Your task to perform on an android device: What's on my calendar tomorrow? Image 0: 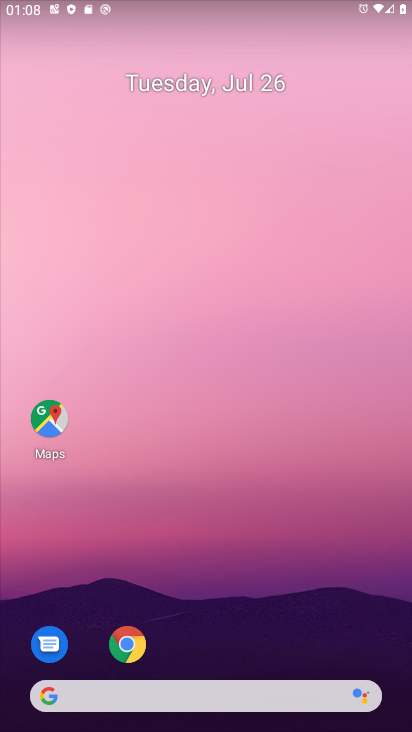
Step 0: drag from (139, 602) to (150, 30)
Your task to perform on an android device: What's on my calendar tomorrow? Image 1: 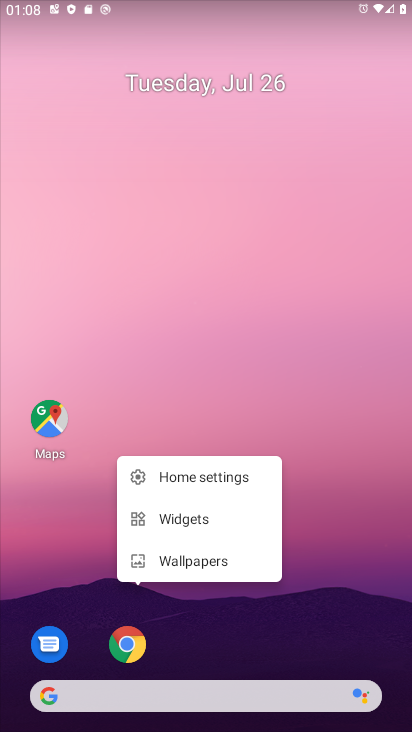
Step 1: click (187, 368)
Your task to perform on an android device: What's on my calendar tomorrow? Image 2: 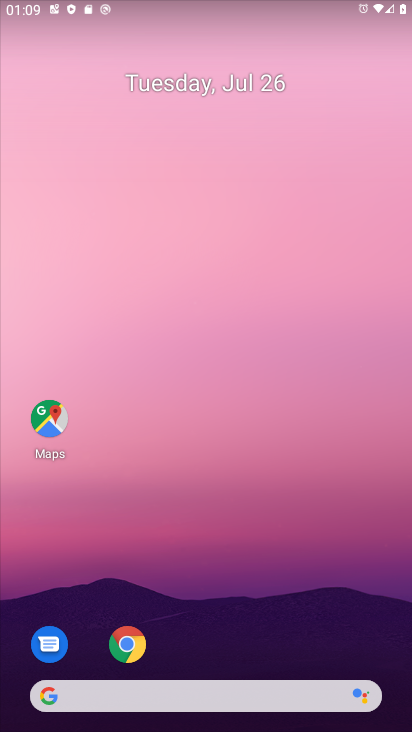
Step 2: drag from (224, 598) to (223, 231)
Your task to perform on an android device: What's on my calendar tomorrow? Image 3: 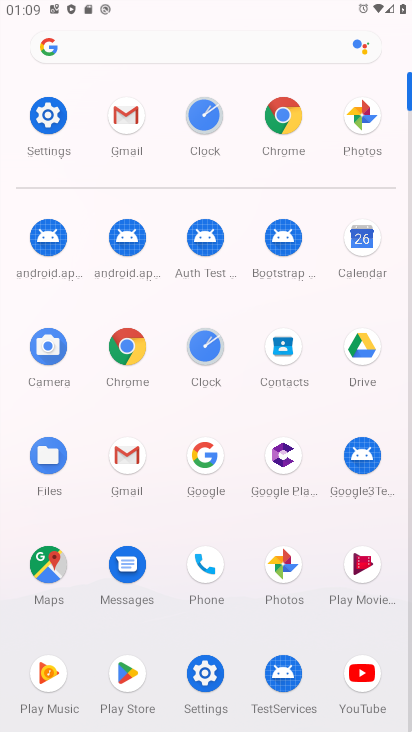
Step 3: click (362, 227)
Your task to perform on an android device: What's on my calendar tomorrow? Image 4: 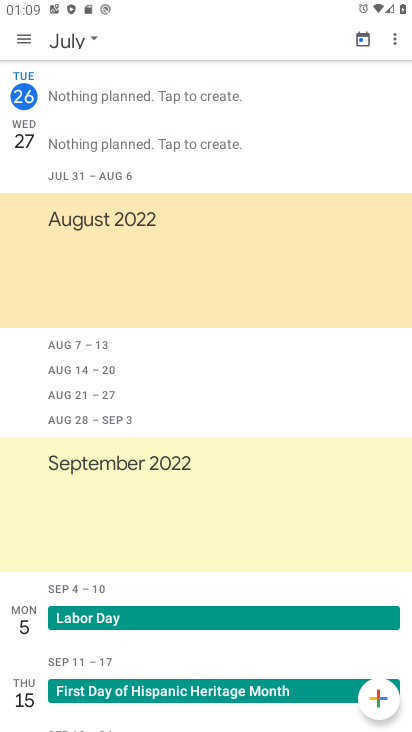
Step 4: click (27, 32)
Your task to perform on an android device: What's on my calendar tomorrow? Image 5: 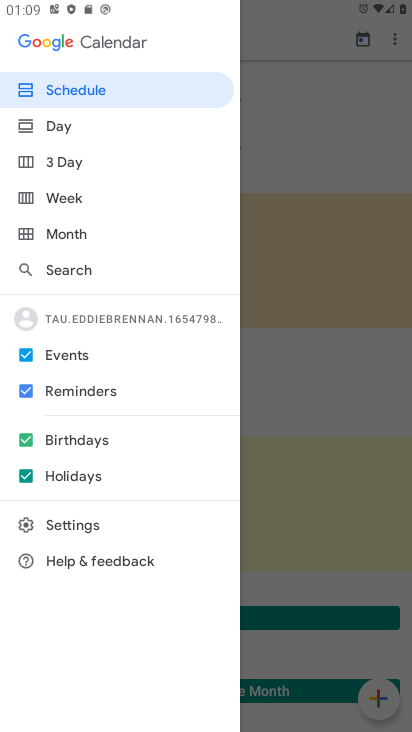
Step 5: click (61, 218)
Your task to perform on an android device: What's on my calendar tomorrow? Image 6: 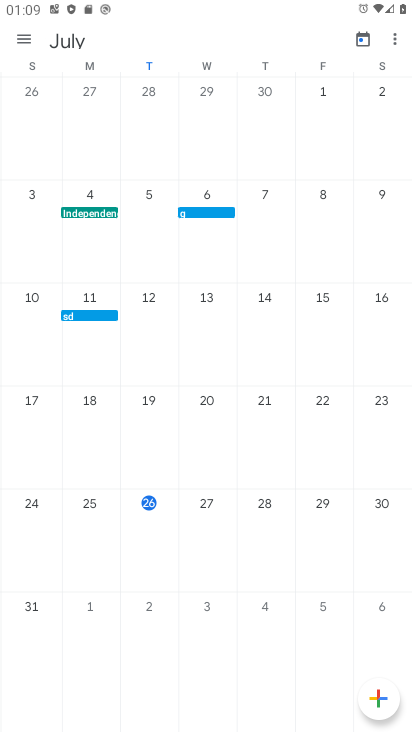
Step 6: click (199, 503)
Your task to perform on an android device: What's on my calendar tomorrow? Image 7: 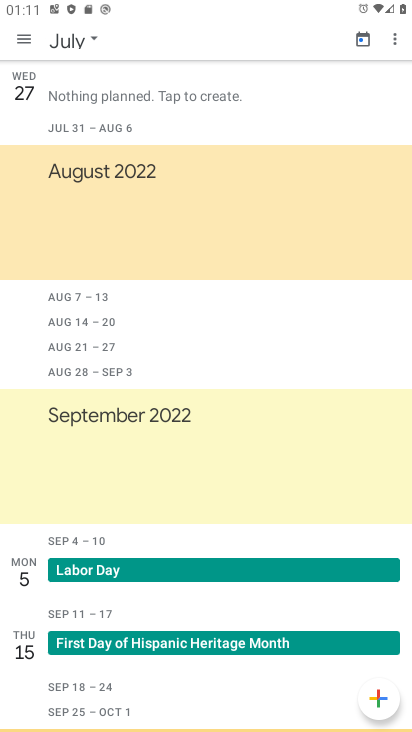
Step 7: task complete